Your task to perform on an android device: turn on translation in the chrome app Image 0: 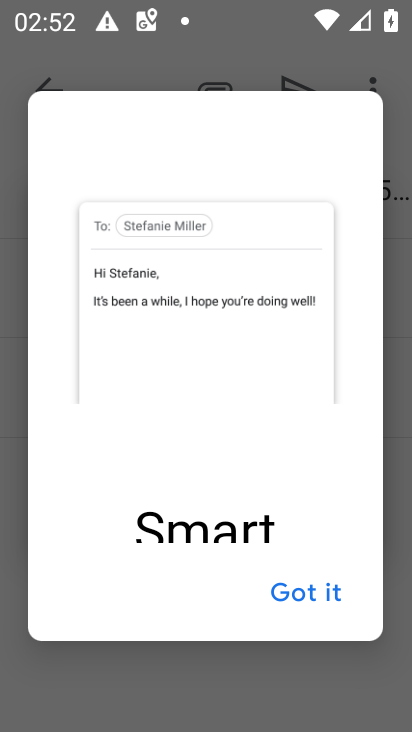
Step 0: press home button
Your task to perform on an android device: turn on translation in the chrome app Image 1: 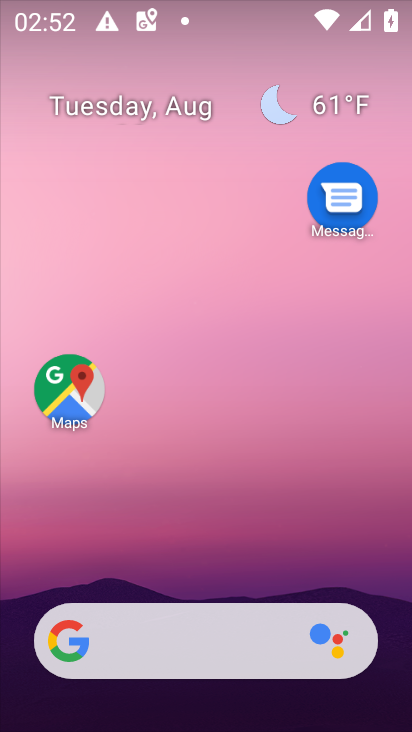
Step 1: drag from (262, 600) to (224, 116)
Your task to perform on an android device: turn on translation in the chrome app Image 2: 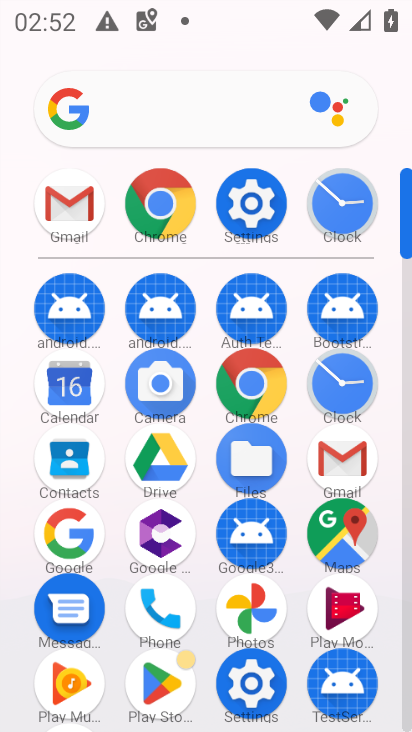
Step 2: click (177, 207)
Your task to perform on an android device: turn on translation in the chrome app Image 3: 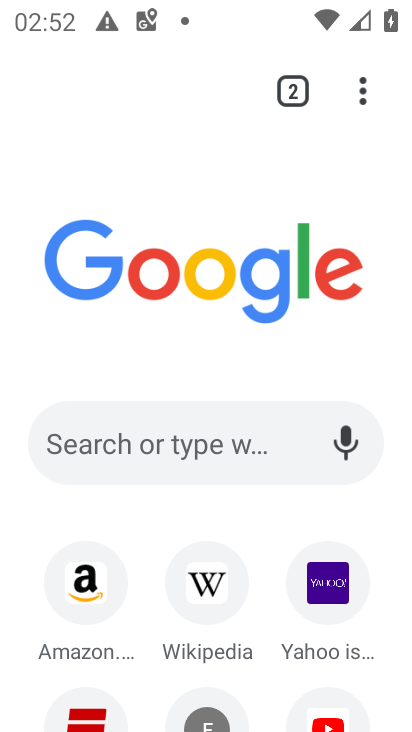
Step 3: click (380, 91)
Your task to perform on an android device: turn on translation in the chrome app Image 4: 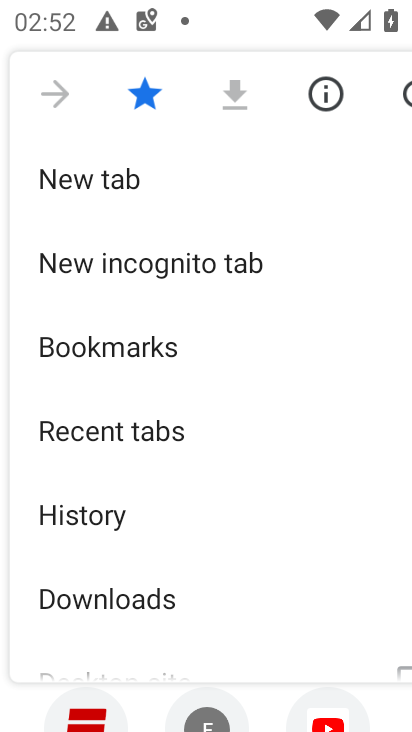
Step 4: drag from (215, 617) to (225, 267)
Your task to perform on an android device: turn on translation in the chrome app Image 5: 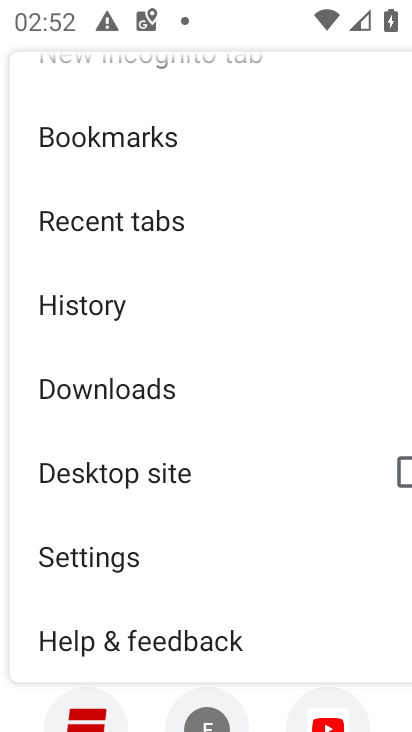
Step 5: click (136, 544)
Your task to perform on an android device: turn on translation in the chrome app Image 6: 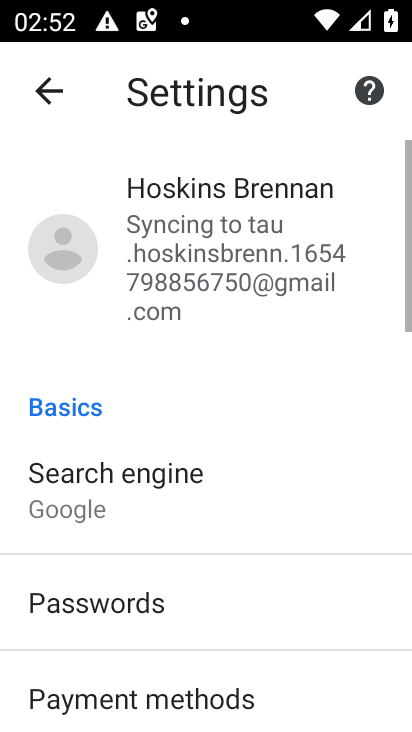
Step 6: drag from (174, 595) to (292, 148)
Your task to perform on an android device: turn on translation in the chrome app Image 7: 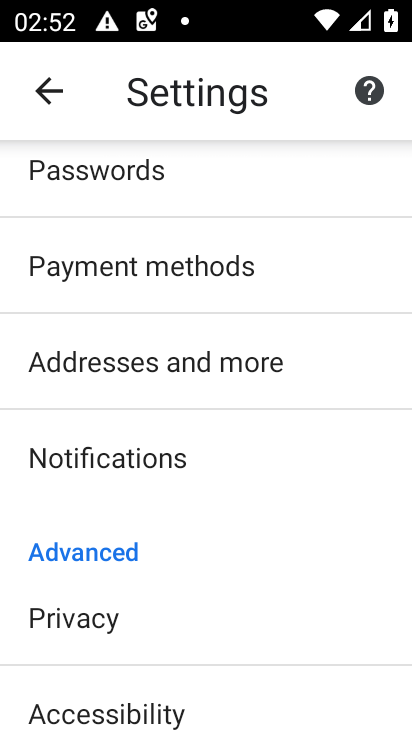
Step 7: drag from (165, 667) to (246, 343)
Your task to perform on an android device: turn on translation in the chrome app Image 8: 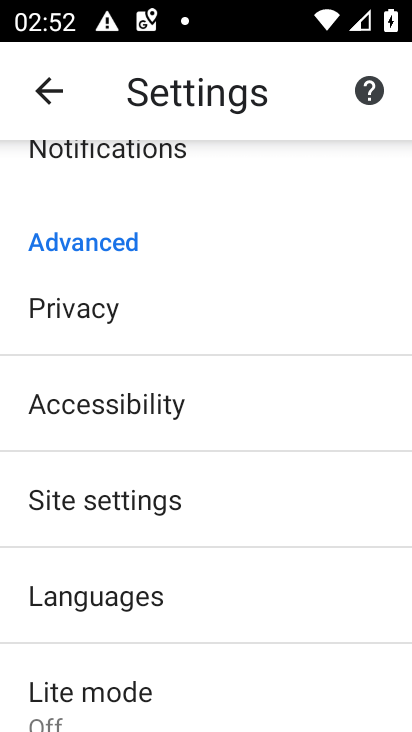
Step 8: click (174, 619)
Your task to perform on an android device: turn on translation in the chrome app Image 9: 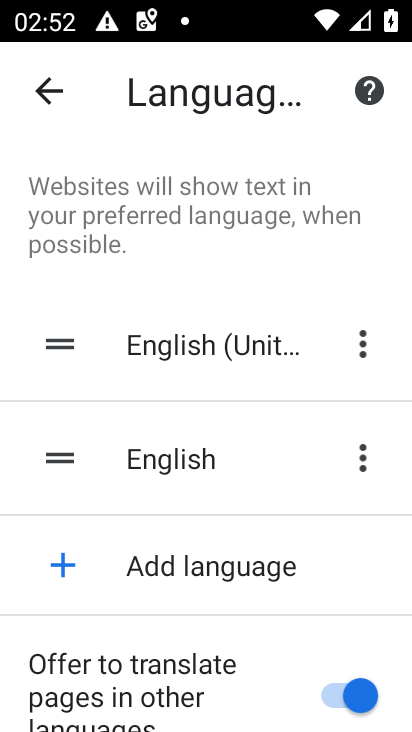
Step 9: task complete